Your task to perform on an android device: move an email to a new category in the gmail app Image 0: 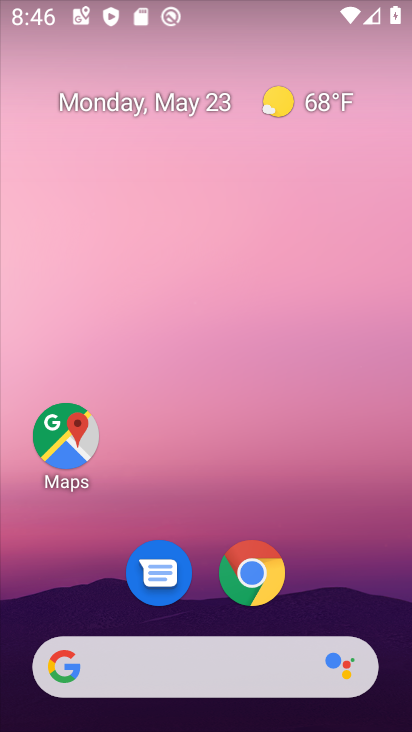
Step 0: drag from (345, 636) to (309, 231)
Your task to perform on an android device: move an email to a new category in the gmail app Image 1: 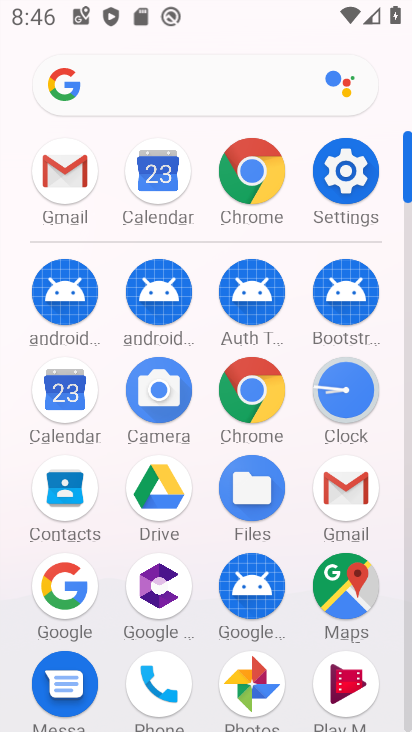
Step 1: click (360, 484)
Your task to perform on an android device: move an email to a new category in the gmail app Image 2: 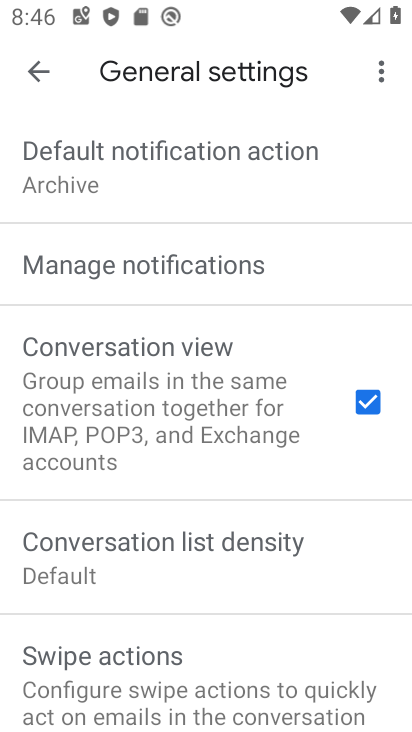
Step 2: click (43, 74)
Your task to perform on an android device: move an email to a new category in the gmail app Image 3: 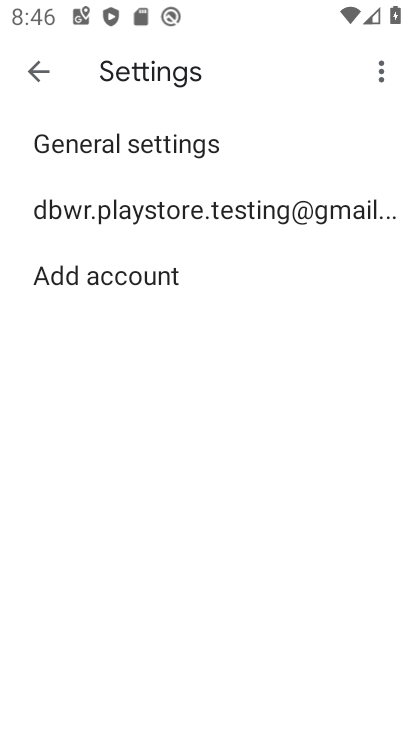
Step 3: click (43, 74)
Your task to perform on an android device: move an email to a new category in the gmail app Image 4: 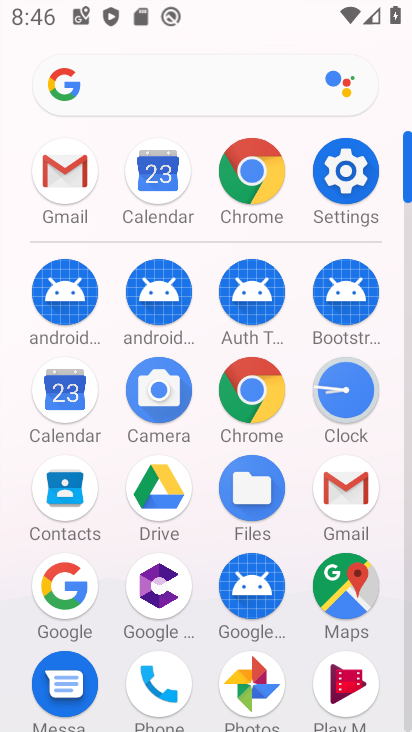
Step 4: click (67, 202)
Your task to perform on an android device: move an email to a new category in the gmail app Image 5: 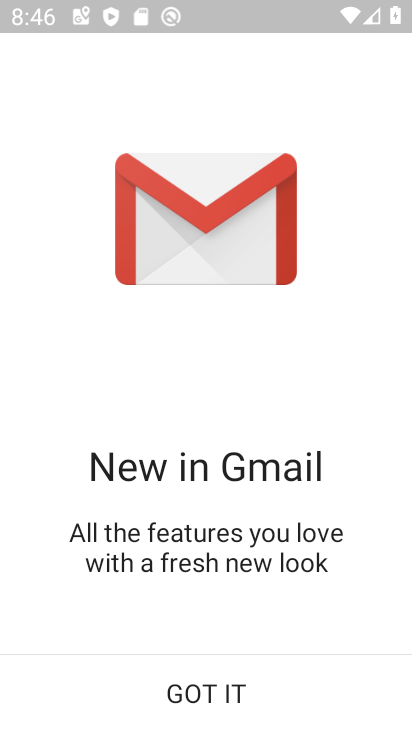
Step 5: click (142, 701)
Your task to perform on an android device: move an email to a new category in the gmail app Image 6: 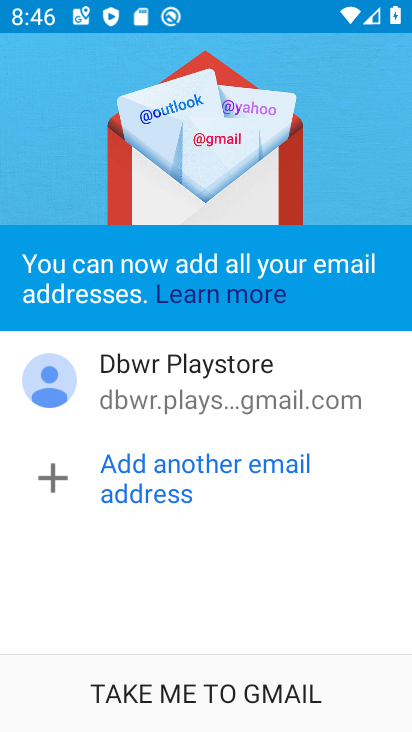
Step 6: click (142, 702)
Your task to perform on an android device: move an email to a new category in the gmail app Image 7: 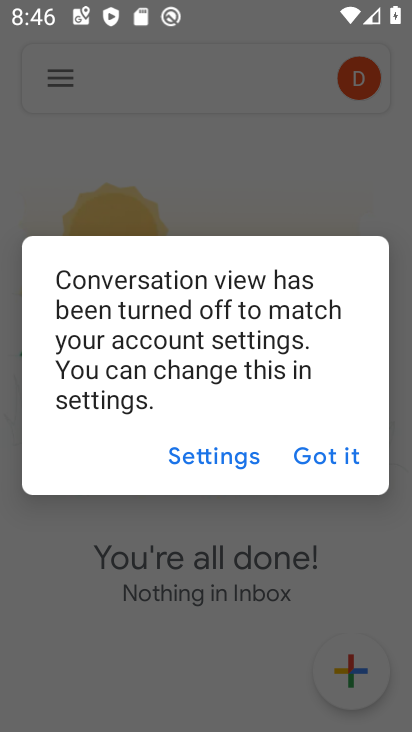
Step 7: click (323, 447)
Your task to perform on an android device: move an email to a new category in the gmail app Image 8: 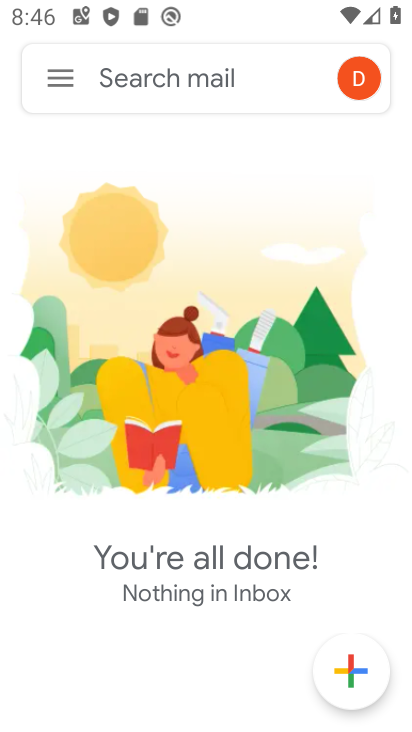
Step 8: click (68, 86)
Your task to perform on an android device: move an email to a new category in the gmail app Image 9: 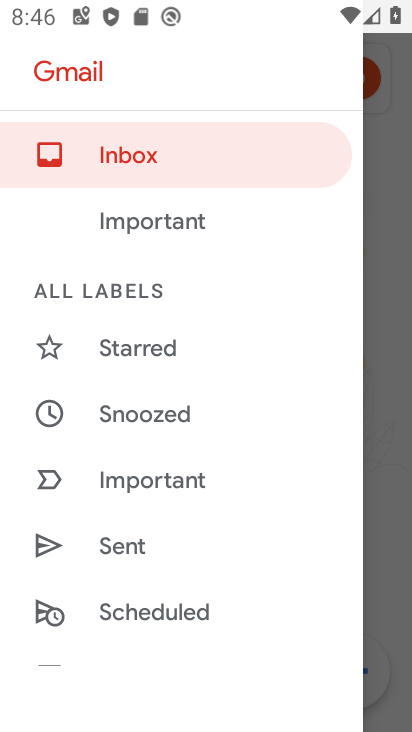
Step 9: drag from (90, 425) to (233, 57)
Your task to perform on an android device: move an email to a new category in the gmail app Image 10: 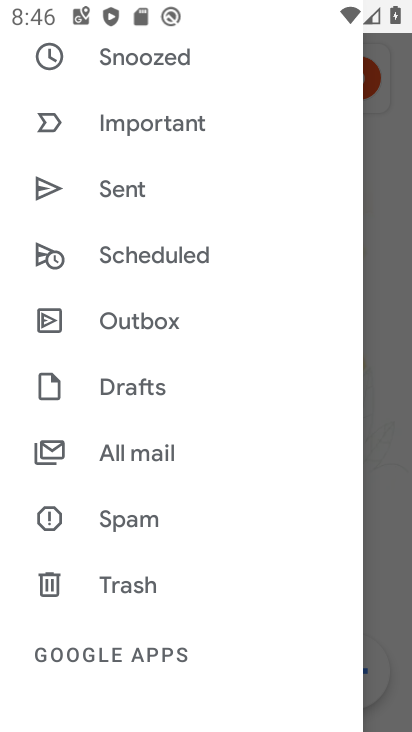
Step 10: drag from (150, 549) to (170, 352)
Your task to perform on an android device: move an email to a new category in the gmail app Image 11: 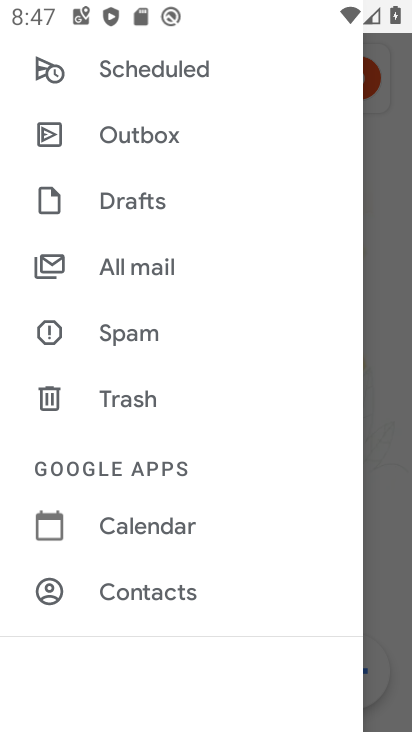
Step 11: click (159, 271)
Your task to perform on an android device: move an email to a new category in the gmail app Image 12: 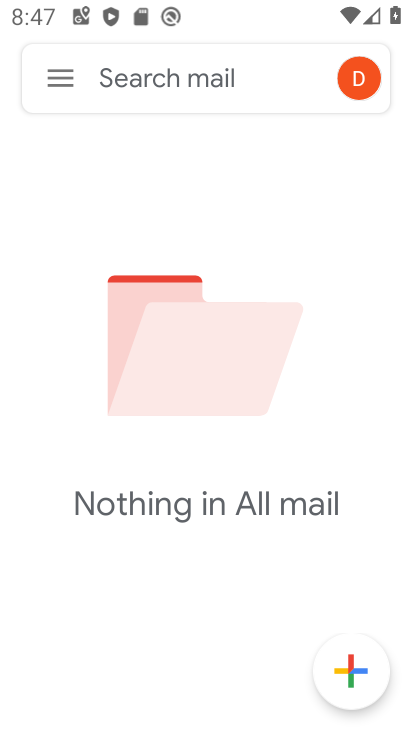
Step 12: task complete